Your task to perform on an android device: Open the phone app and click the voicemail tab. Image 0: 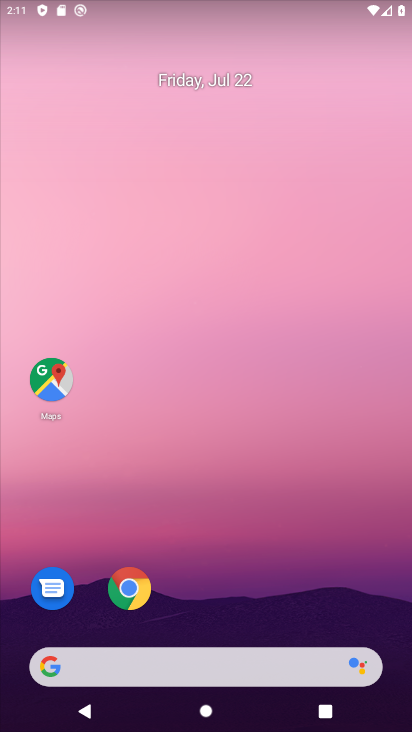
Step 0: press home button
Your task to perform on an android device: Open the phone app and click the voicemail tab. Image 1: 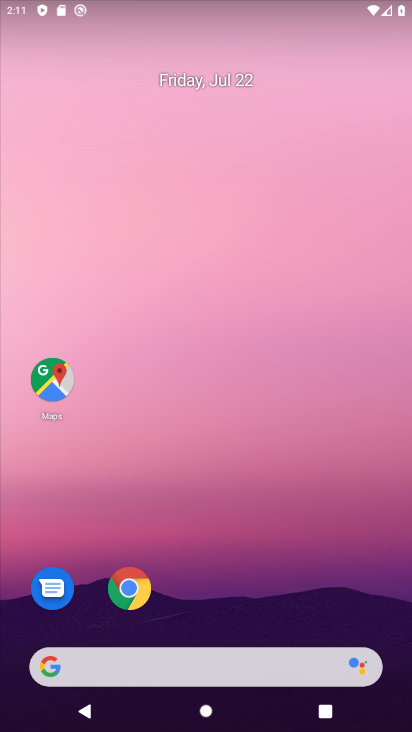
Step 1: drag from (213, 626) to (214, 30)
Your task to perform on an android device: Open the phone app and click the voicemail tab. Image 2: 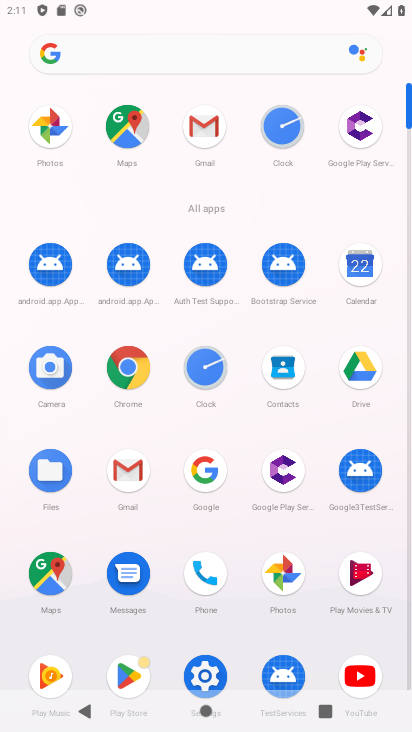
Step 2: click (200, 565)
Your task to perform on an android device: Open the phone app and click the voicemail tab. Image 3: 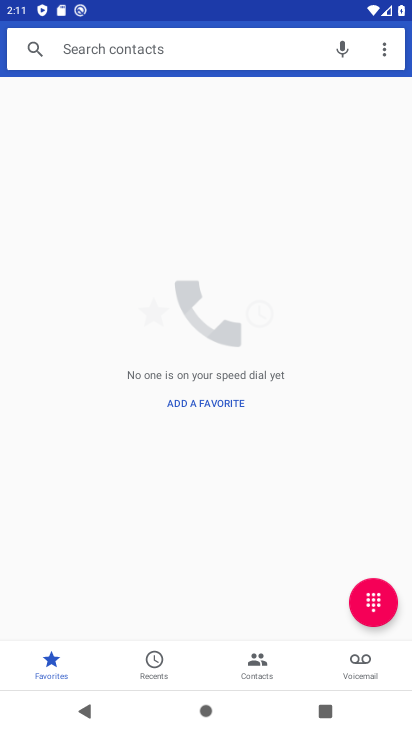
Step 3: click (342, 664)
Your task to perform on an android device: Open the phone app and click the voicemail tab. Image 4: 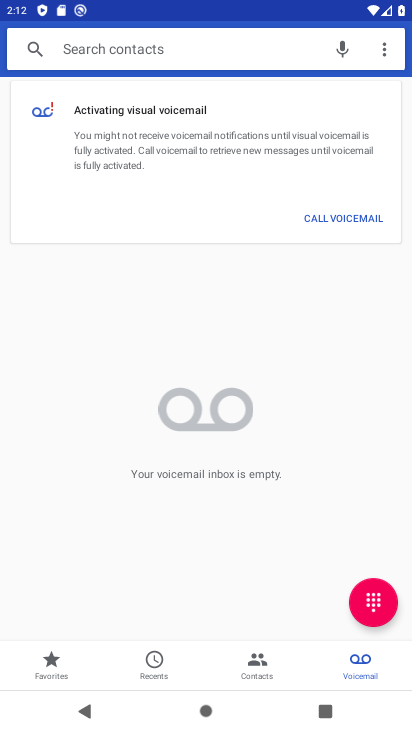
Step 4: task complete